Your task to perform on an android device: add a contact in the contacts app Image 0: 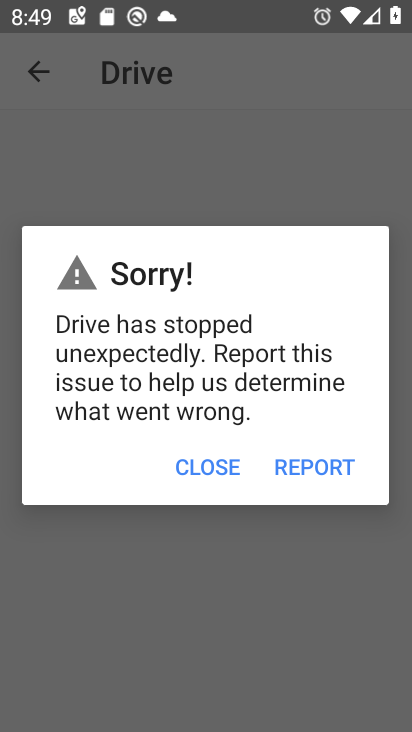
Step 0: press home button
Your task to perform on an android device: add a contact in the contacts app Image 1: 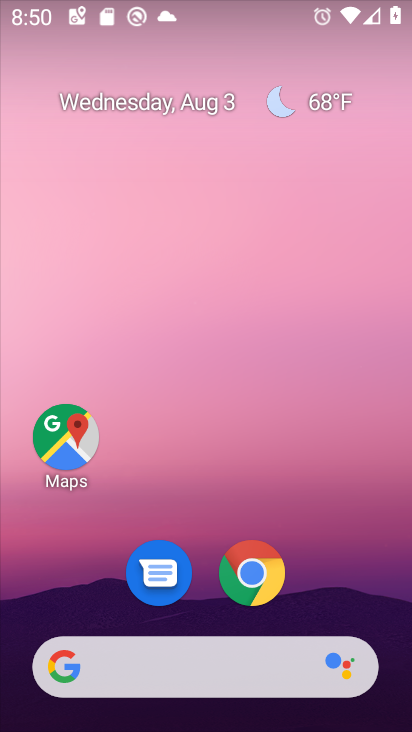
Step 1: drag from (390, 586) to (365, 22)
Your task to perform on an android device: add a contact in the contacts app Image 2: 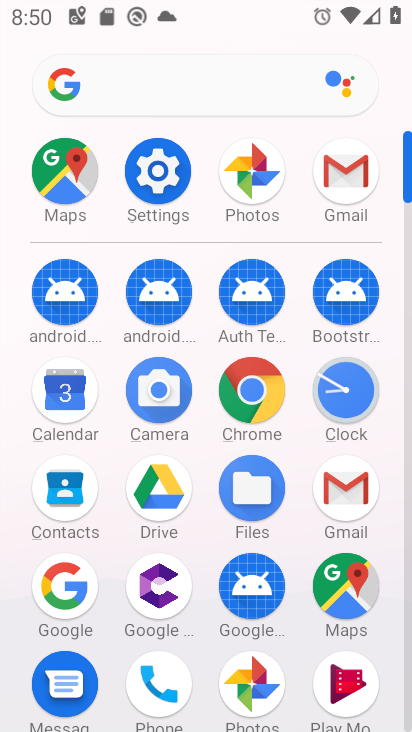
Step 2: click (65, 501)
Your task to perform on an android device: add a contact in the contacts app Image 3: 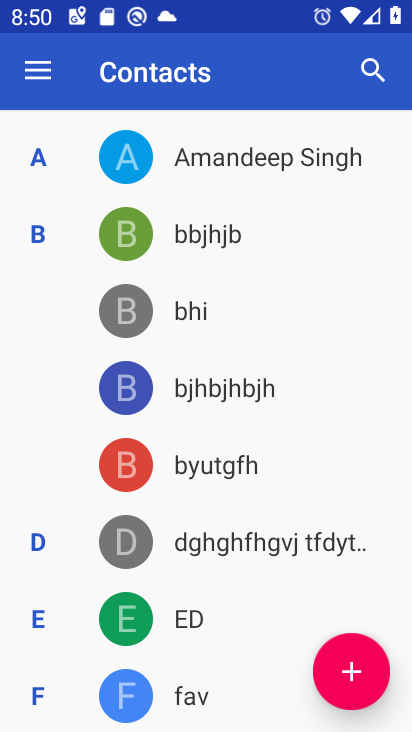
Step 3: click (340, 669)
Your task to perform on an android device: add a contact in the contacts app Image 4: 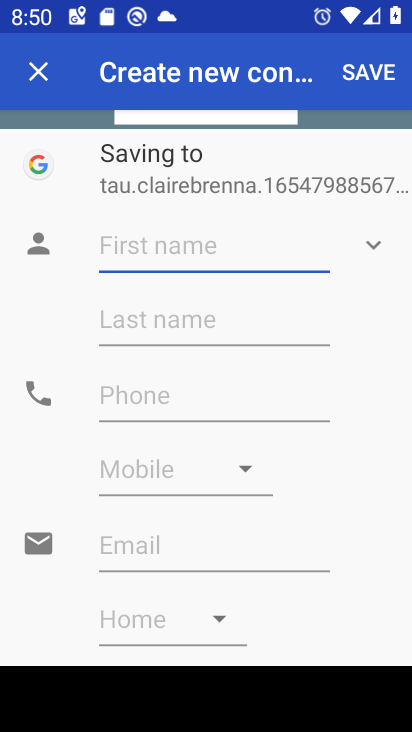
Step 4: click (142, 238)
Your task to perform on an android device: add a contact in the contacts app Image 5: 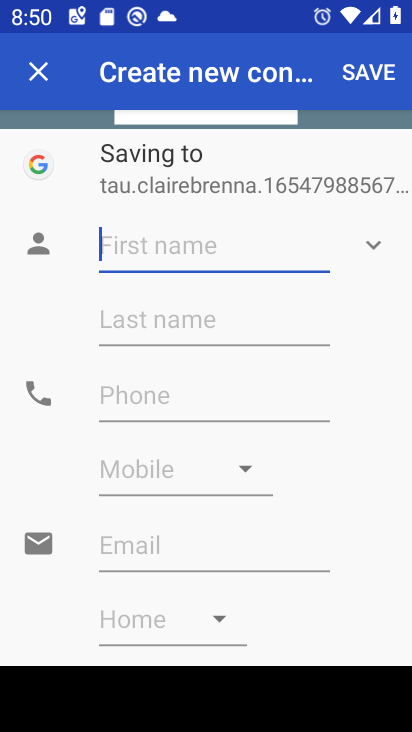
Step 5: type "heena"
Your task to perform on an android device: add a contact in the contacts app Image 6: 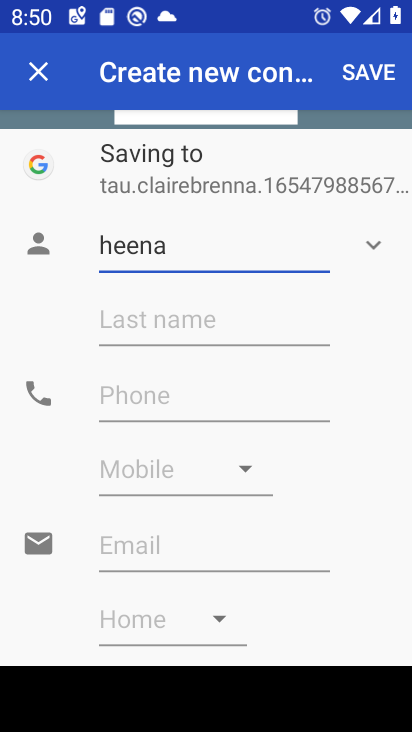
Step 6: click (174, 413)
Your task to perform on an android device: add a contact in the contacts app Image 7: 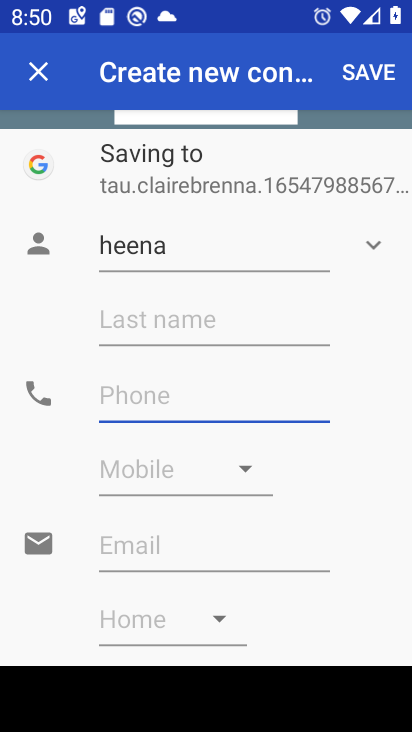
Step 7: type "675432"
Your task to perform on an android device: add a contact in the contacts app Image 8: 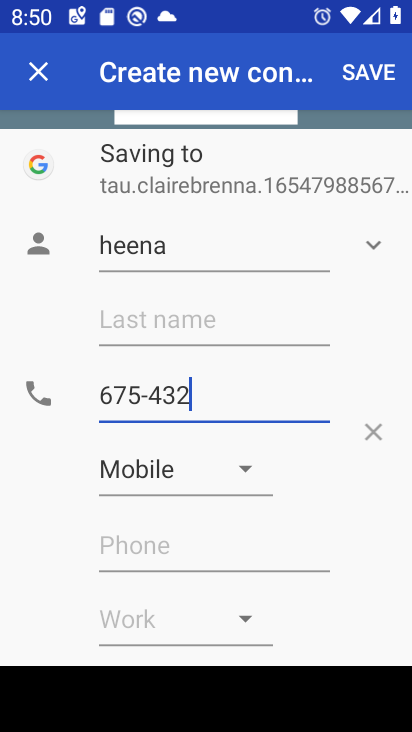
Step 8: click (385, 74)
Your task to perform on an android device: add a contact in the contacts app Image 9: 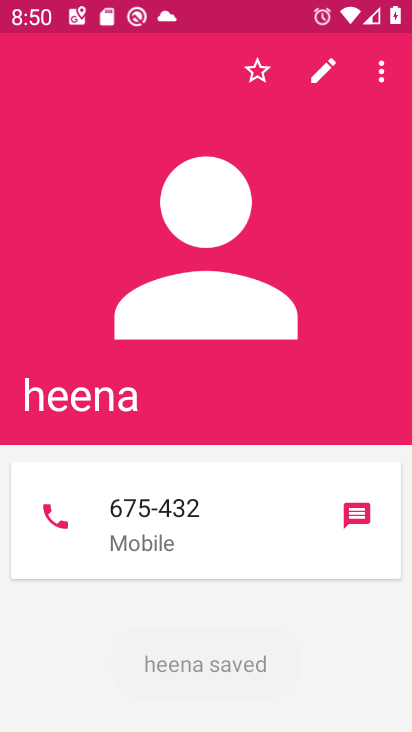
Step 9: task complete